Your task to perform on an android device: What's on my calendar today? Image 0: 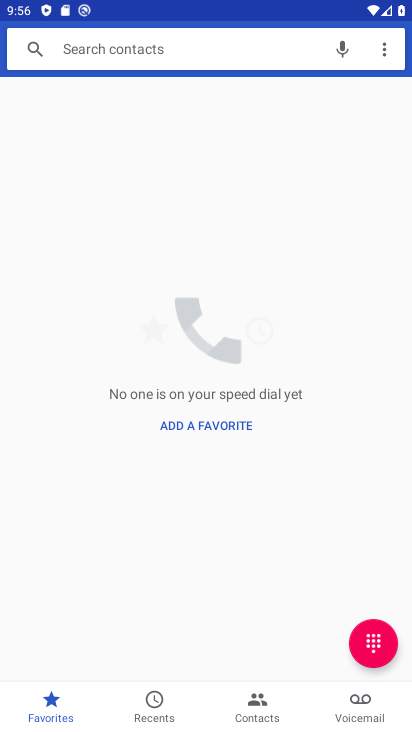
Step 0: press home button
Your task to perform on an android device: What's on my calendar today? Image 1: 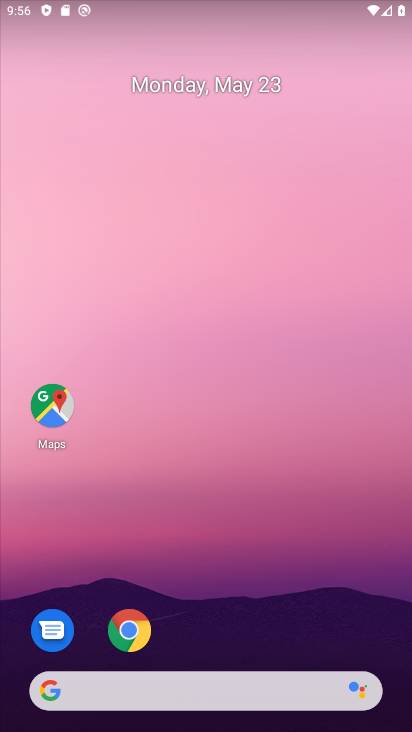
Step 1: drag from (328, 621) to (366, 7)
Your task to perform on an android device: What's on my calendar today? Image 2: 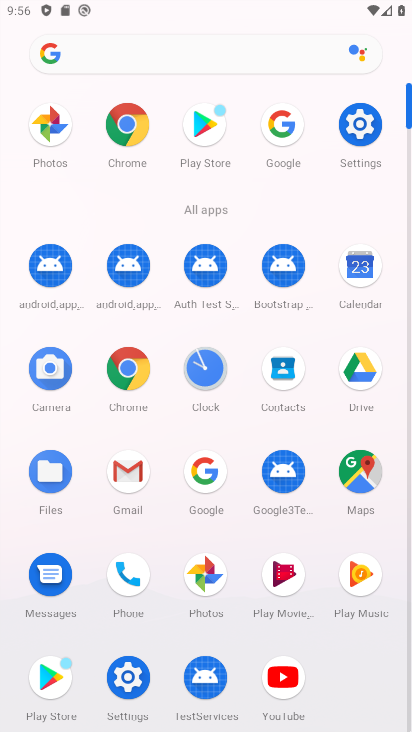
Step 2: click (366, 274)
Your task to perform on an android device: What's on my calendar today? Image 3: 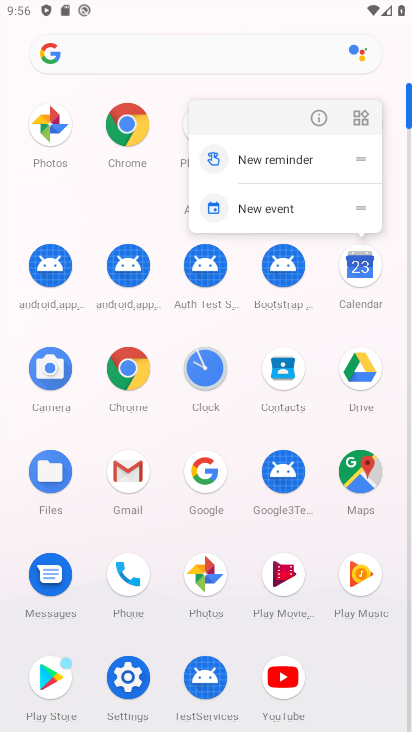
Step 3: click (358, 268)
Your task to perform on an android device: What's on my calendar today? Image 4: 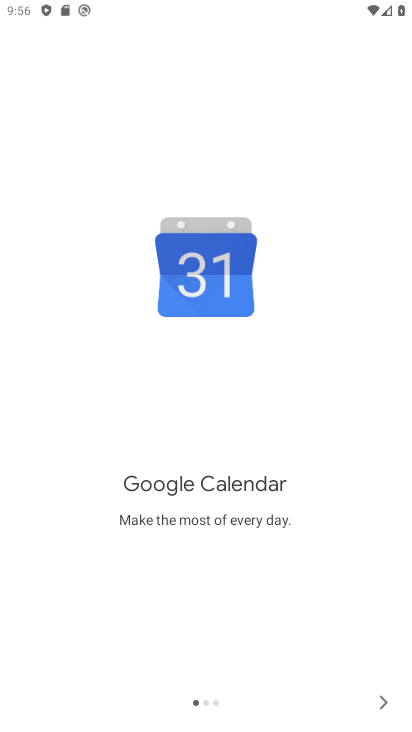
Step 4: click (379, 702)
Your task to perform on an android device: What's on my calendar today? Image 5: 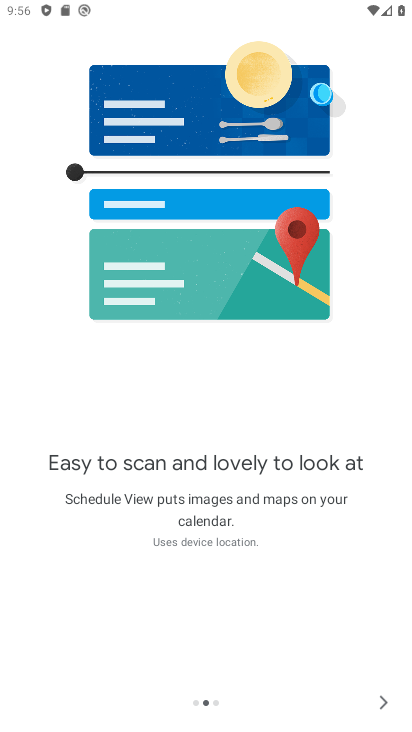
Step 5: click (379, 702)
Your task to perform on an android device: What's on my calendar today? Image 6: 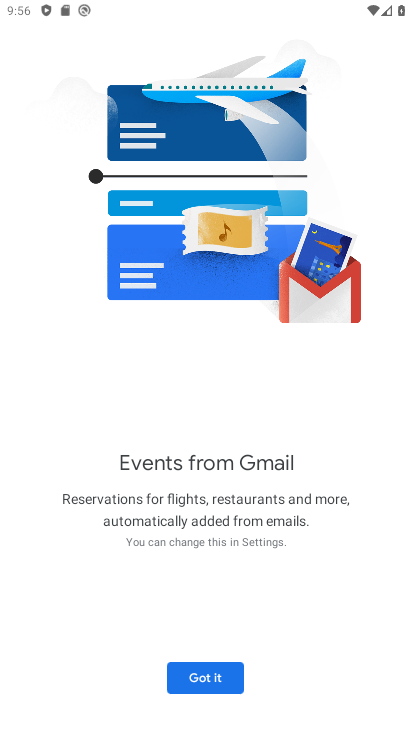
Step 6: click (201, 681)
Your task to perform on an android device: What's on my calendar today? Image 7: 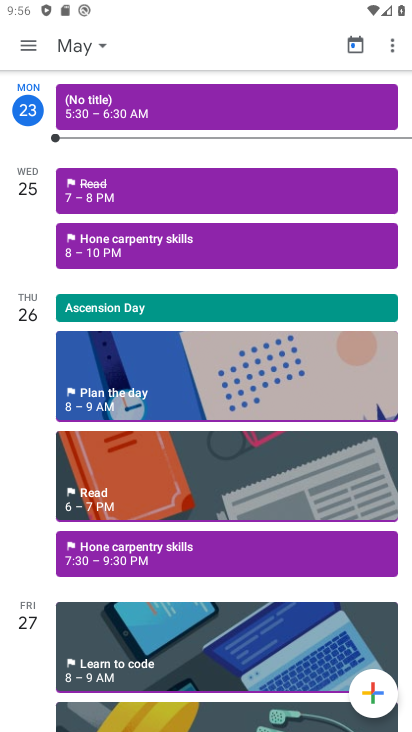
Step 7: click (120, 104)
Your task to perform on an android device: What's on my calendar today? Image 8: 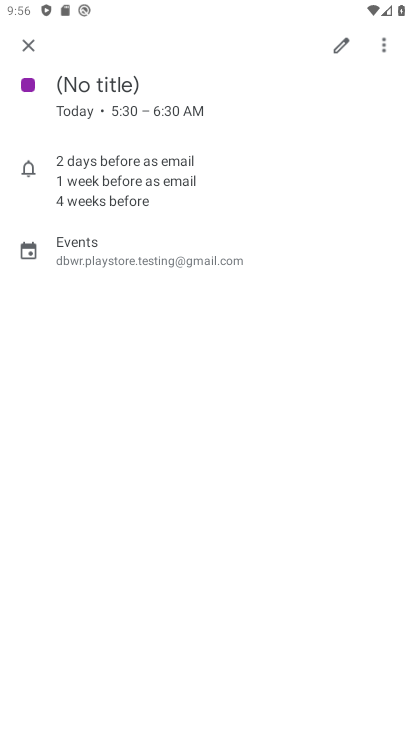
Step 8: task complete